Your task to perform on an android device: Add "alienware area 51" to the cart on bestbuy, then select checkout. Image 0: 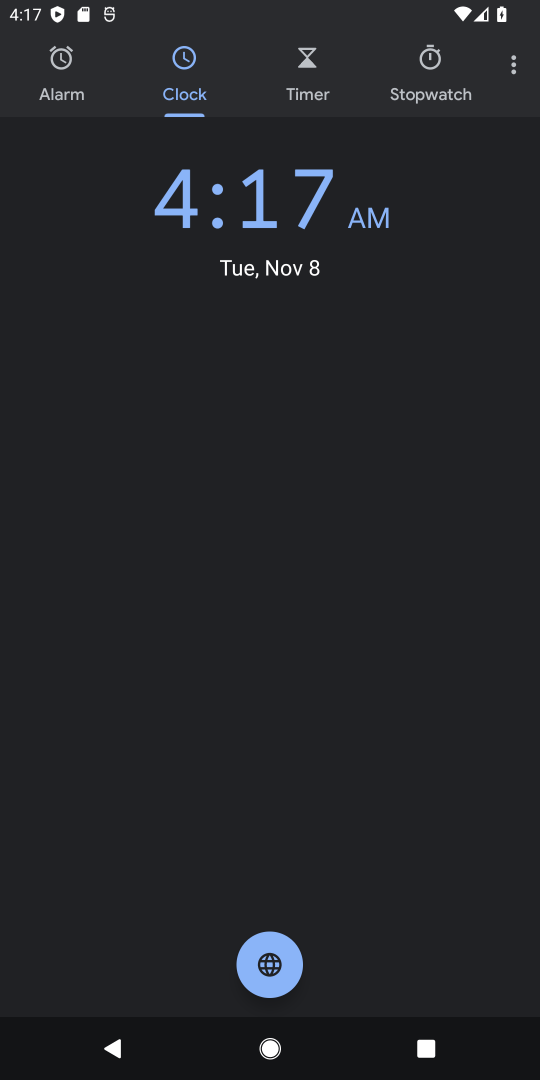
Step 0: press home button
Your task to perform on an android device: Add "alienware area 51" to the cart on bestbuy, then select checkout. Image 1: 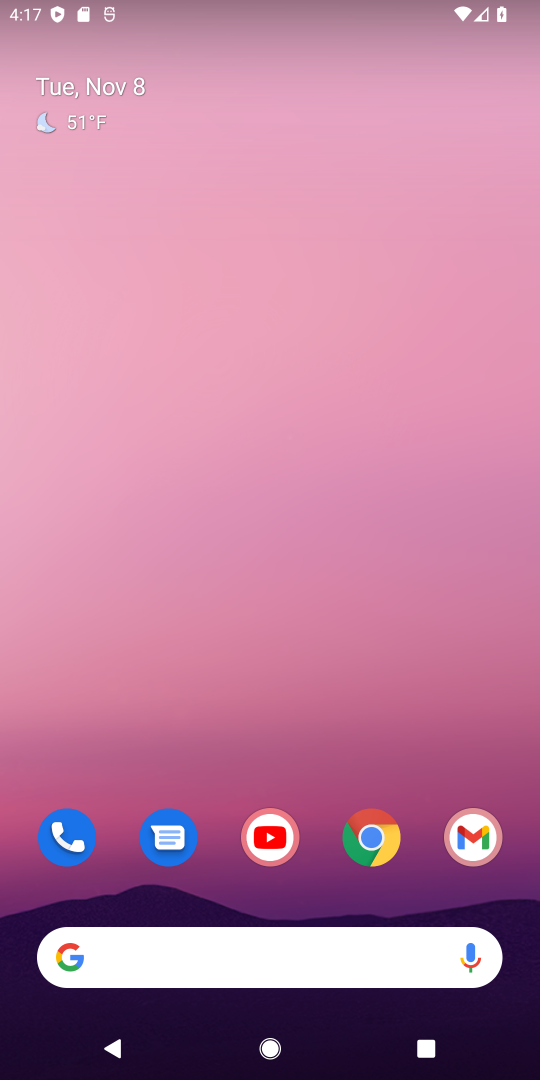
Step 1: click (359, 835)
Your task to perform on an android device: Add "alienware area 51" to the cart on bestbuy, then select checkout. Image 2: 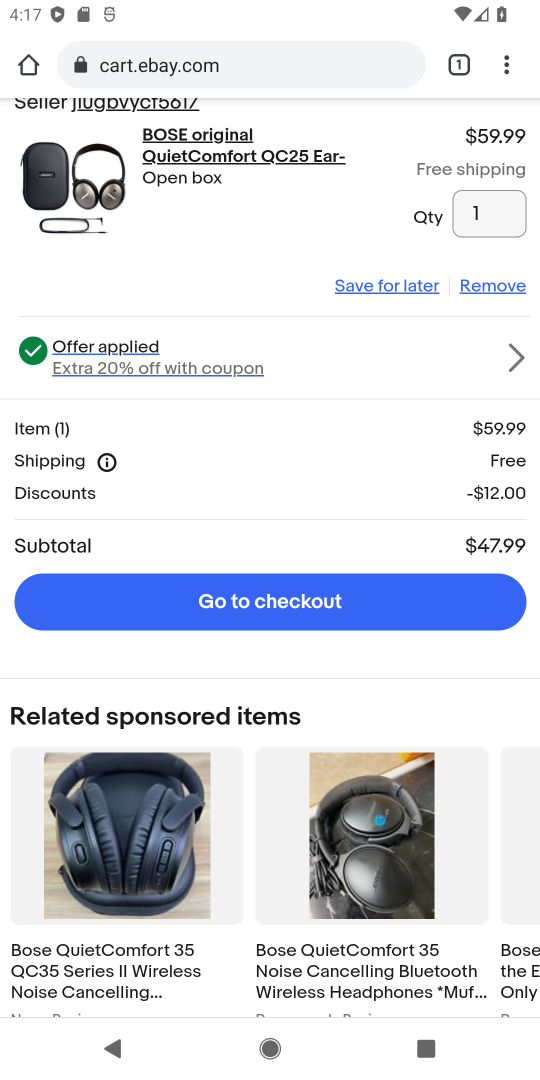
Step 2: click (194, 64)
Your task to perform on an android device: Add "alienware area 51" to the cart on bestbuy, then select checkout. Image 3: 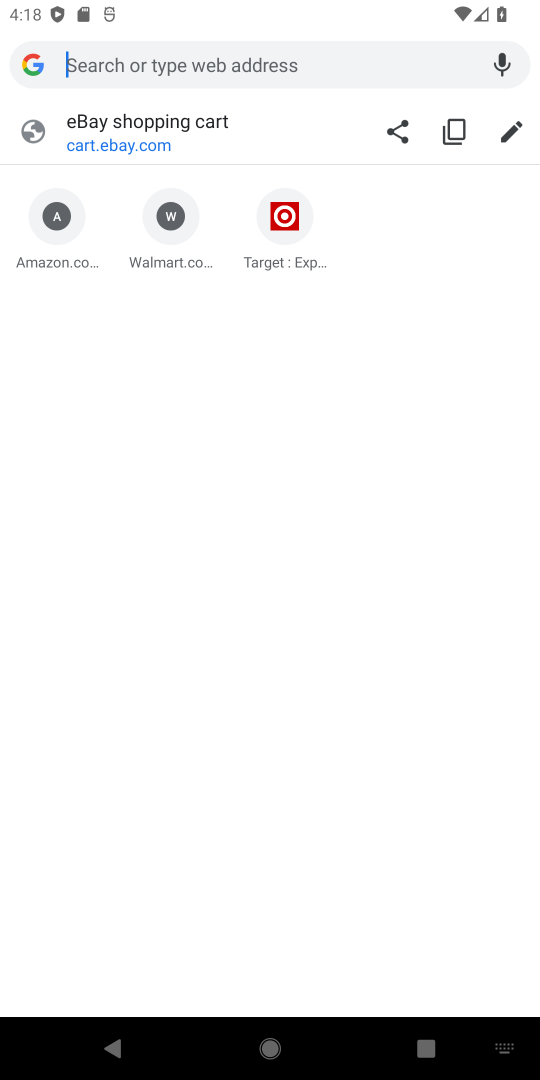
Step 3: type "alienware area 51"
Your task to perform on an android device: Add "alienware area 51" to the cart on bestbuy, then select checkout. Image 4: 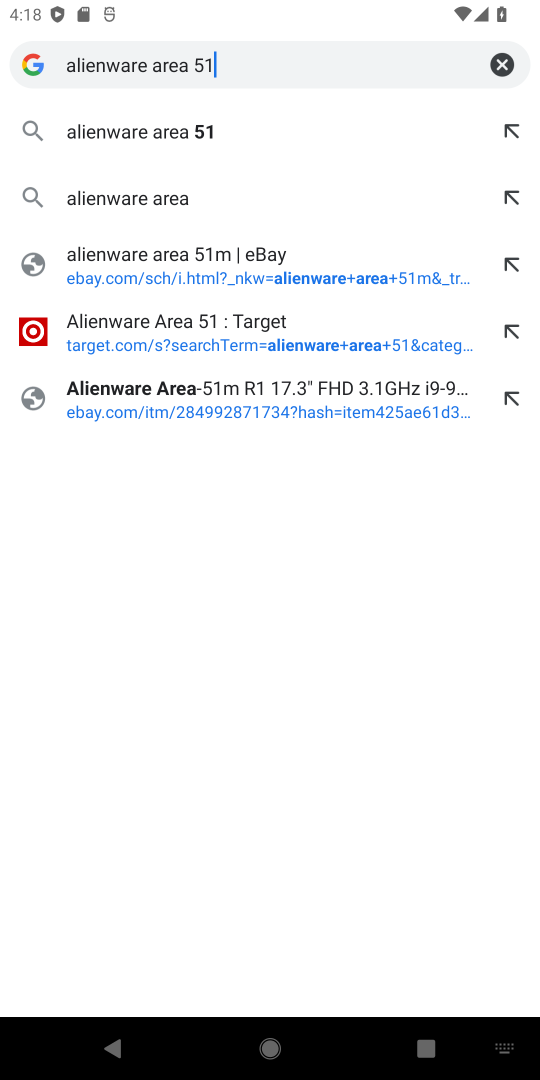
Step 4: type ""
Your task to perform on an android device: Add "alienware area 51" to the cart on bestbuy, then select checkout. Image 5: 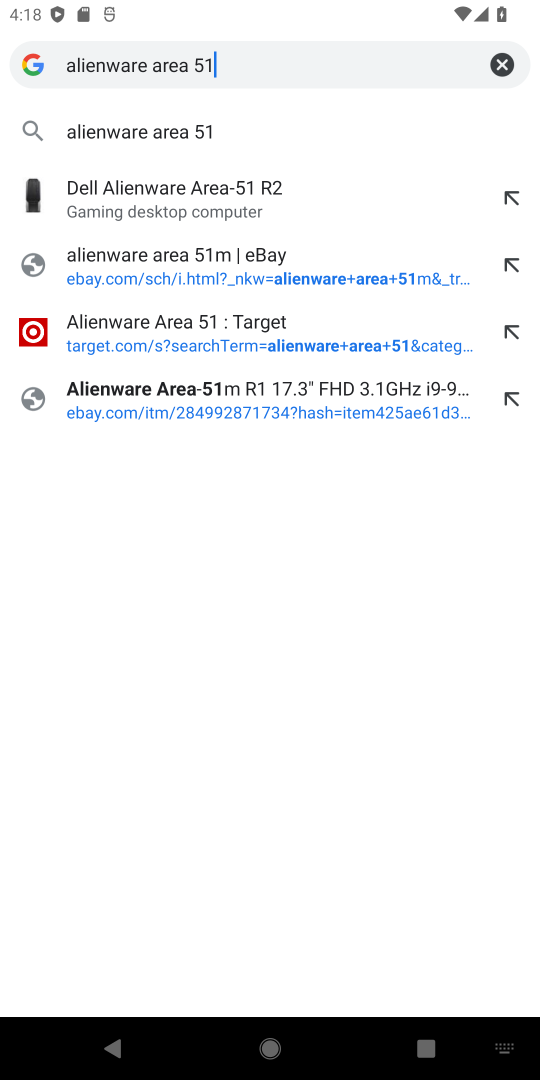
Step 5: click (123, 135)
Your task to perform on an android device: Add "alienware area 51" to the cart on bestbuy, then select checkout. Image 6: 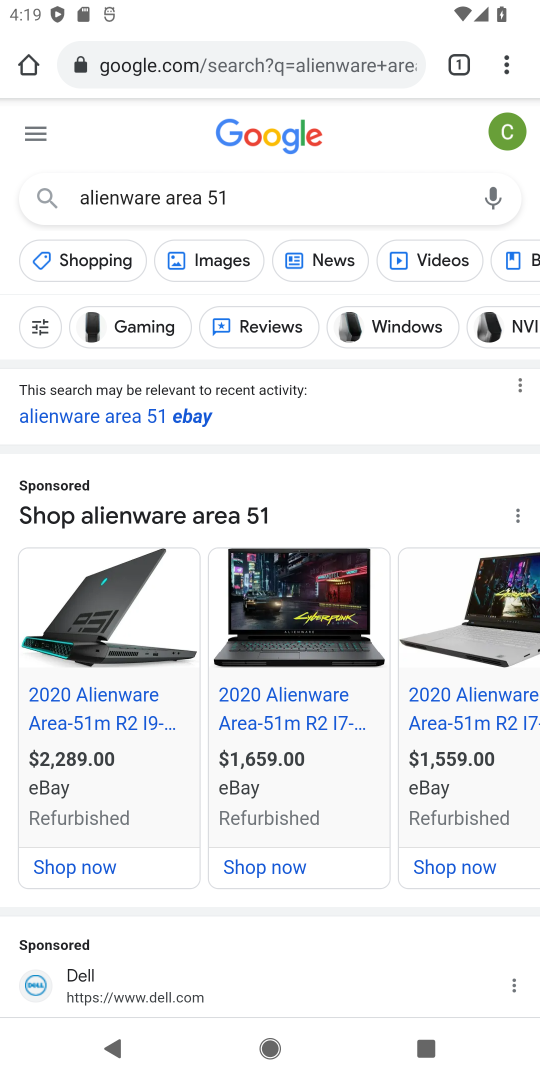
Step 6: drag from (112, 823) to (120, 129)
Your task to perform on an android device: Add "alienware area 51" to the cart on bestbuy, then select checkout. Image 7: 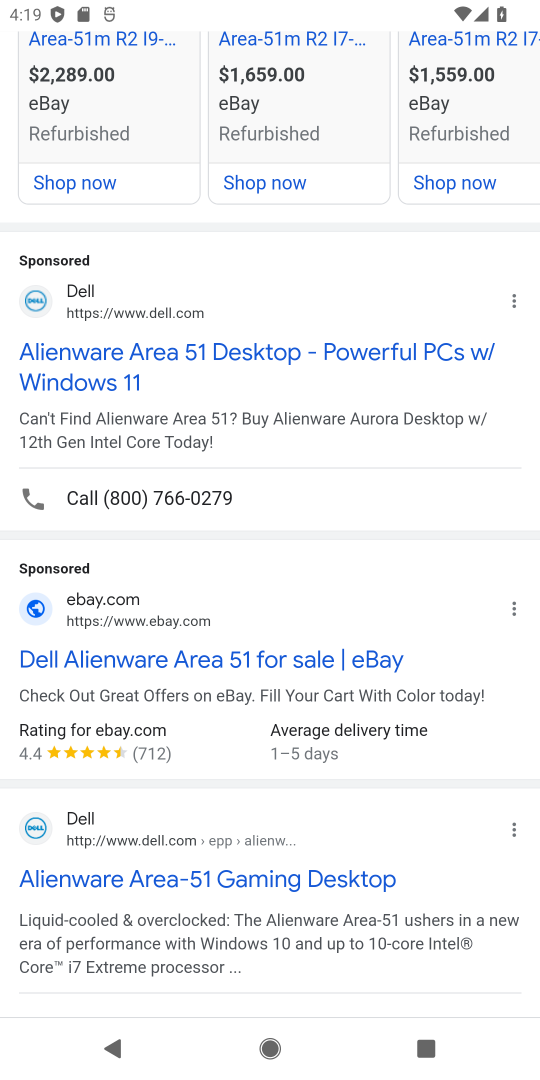
Step 7: click (138, 342)
Your task to perform on an android device: Add "alienware area 51" to the cart on bestbuy, then select checkout. Image 8: 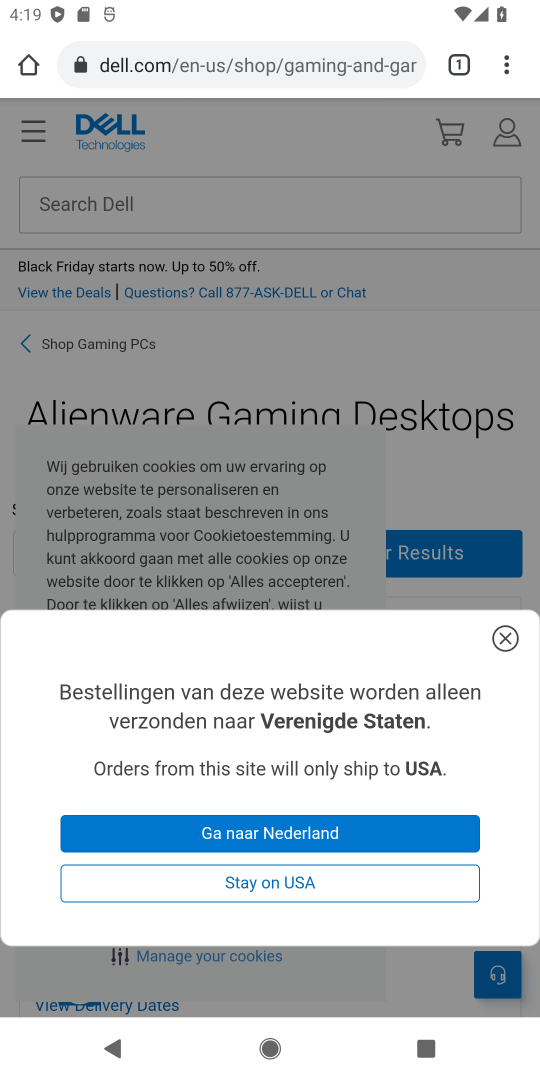
Step 8: click (509, 644)
Your task to perform on an android device: Add "alienware area 51" to the cart on bestbuy, then select checkout. Image 9: 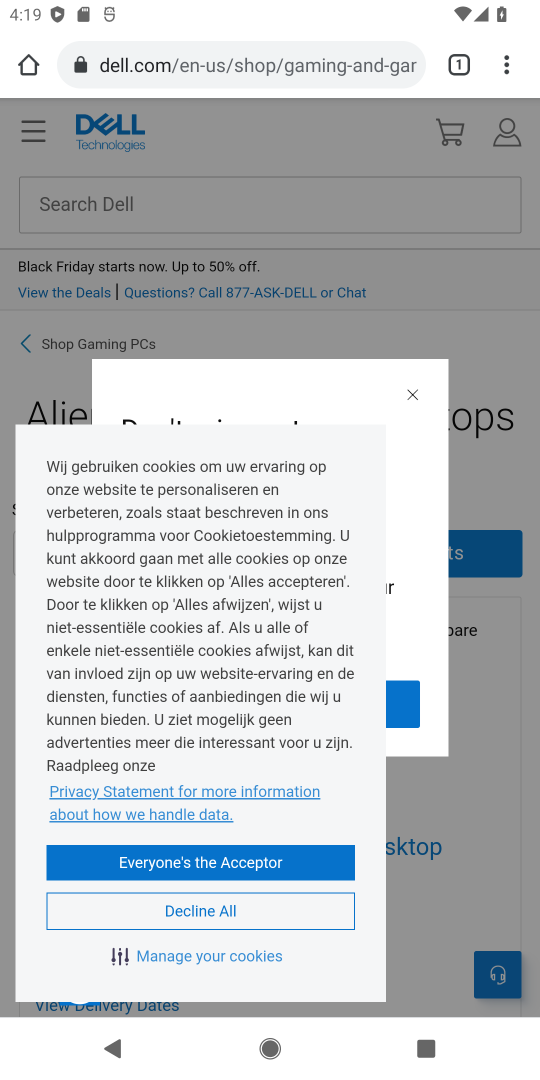
Step 9: click (411, 391)
Your task to perform on an android device: Add "alienware area 51" to the cart on bestbuy, then select checkout. Image 10: 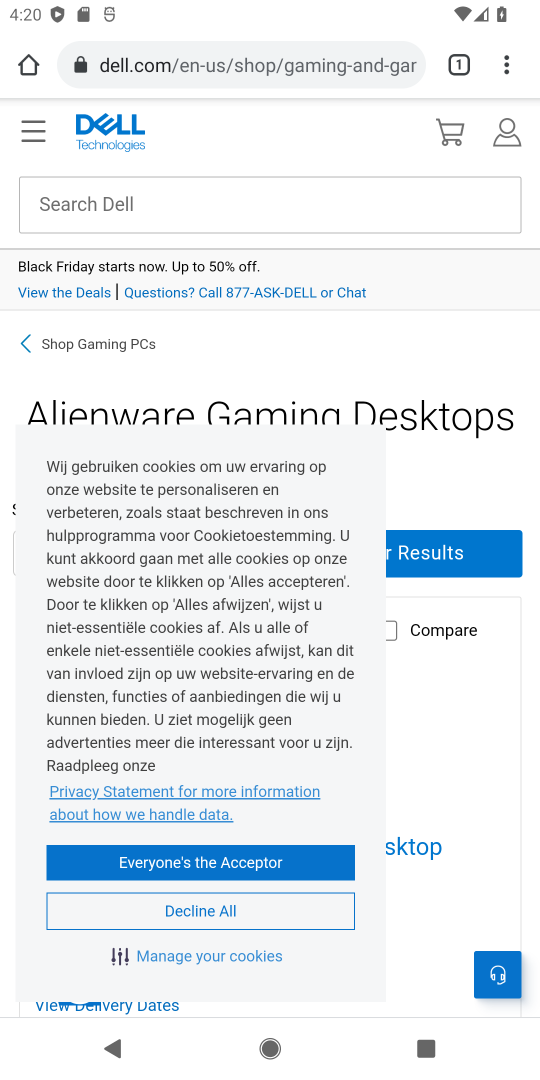
Step 10: click (182, 912)
Your task to perform on an android device: Add "alienware area 51" to the cart on bestbuy, then select checkout. Image 11: 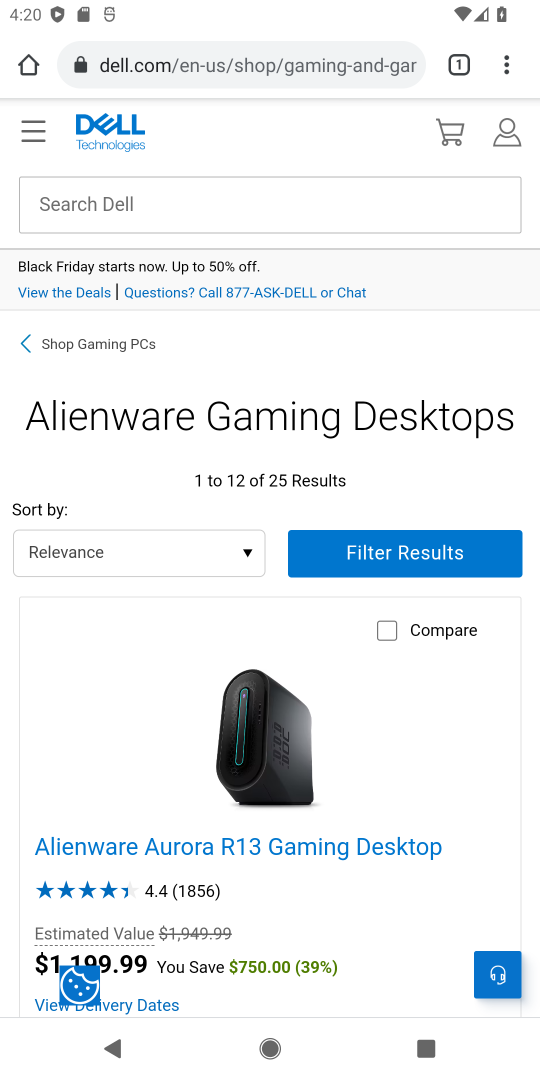
Step 11: drag from (152, 768) to (209, 155)
Your task to perform on an android device: Add "alienware area 51" to the cart on bestbuy, then select checkout. Image 12: 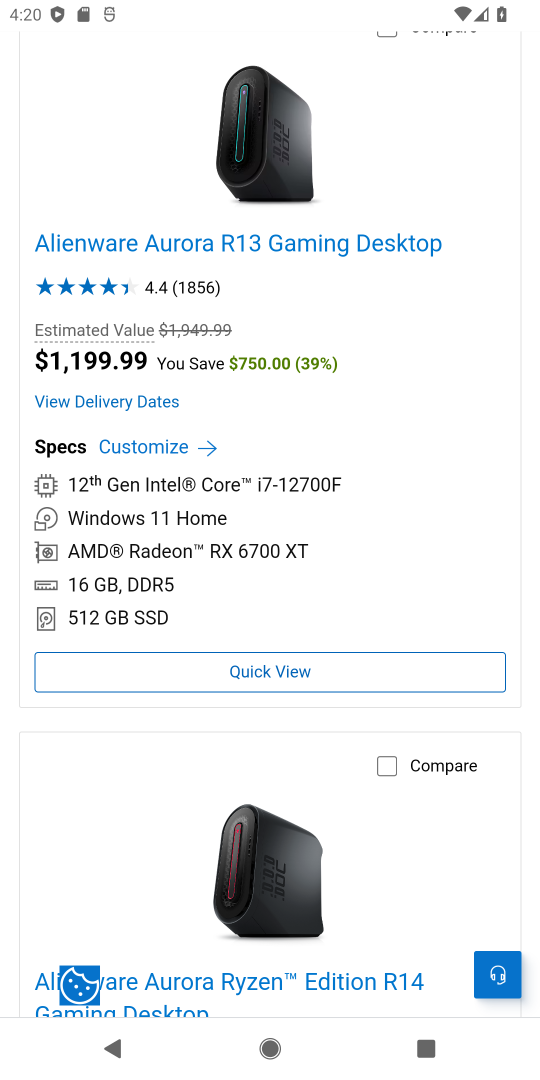
Step 12: drag from (273, 869) to (275, 468)
Your task to perform on an android device: Add "alienware area 51" to the cart on bestbuy, then select checkout. Image 13: 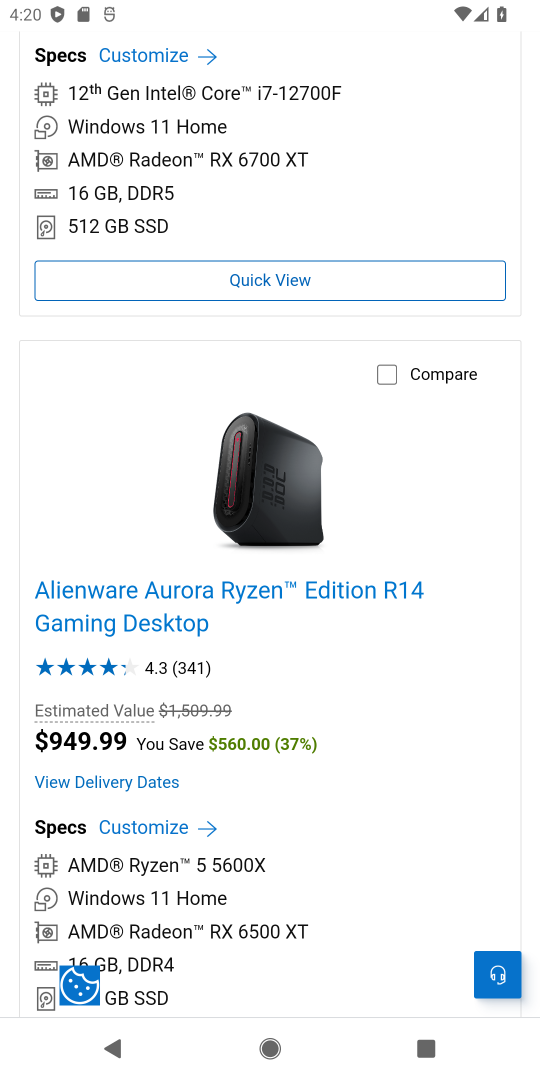
Step 13: click (172, 597)
Your task to perform on an android device: Add "alienware area 51" to the cart on bestbuy, then select checkout. Image 14: 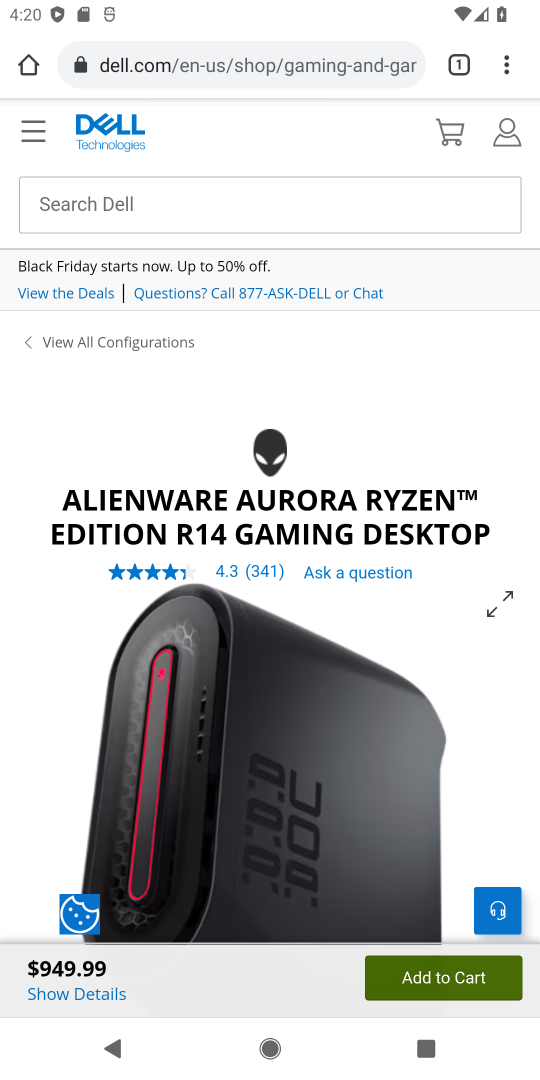
Step 14: drag from (81, 756) to (191, 35)
Your task to perform on an android device: Add "alienware area 51" to the cart on bestbuy, then select checkout. Image 15: 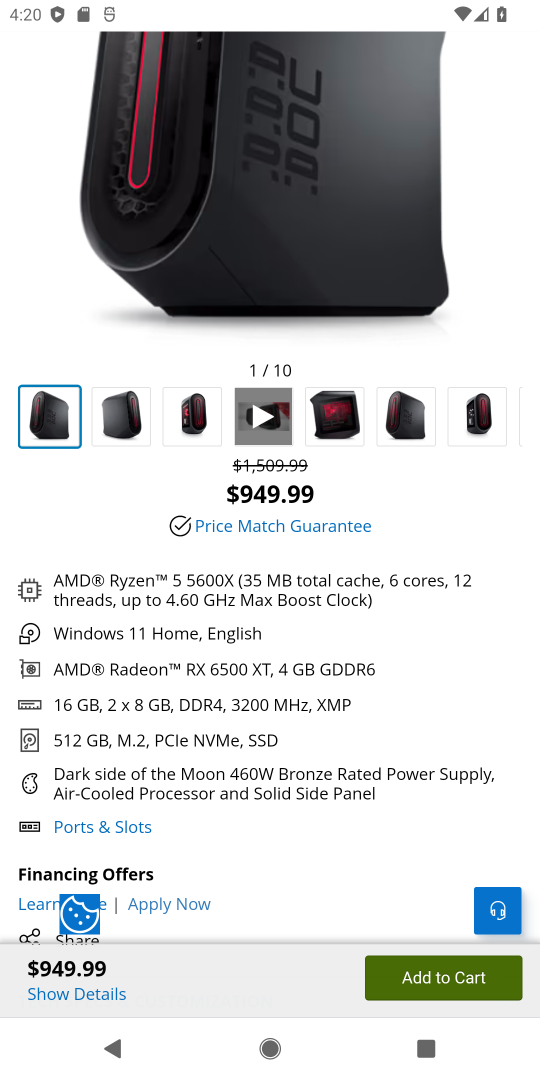
Step 15: click (444, 984)
Your task to perform on an android device: Add "alienware area 51" to the cart on bestbuy, then select checkout. Image 16: 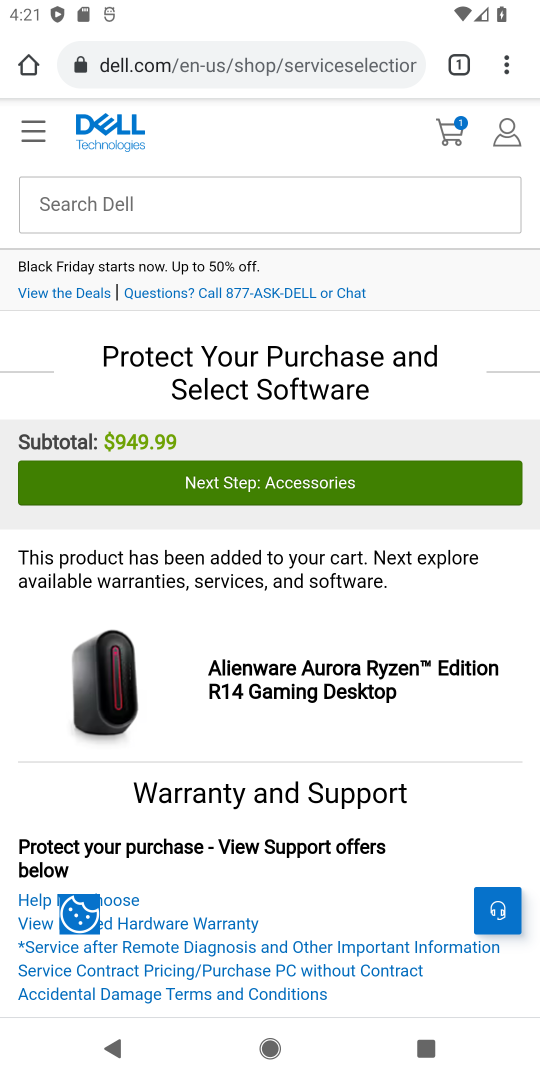
Step 16: drag from (225, 679) to (256, 471)
Your task to perform on an android device: Add "alienware area 51" to the cart on bestbuy, then select checkout. Image 17: 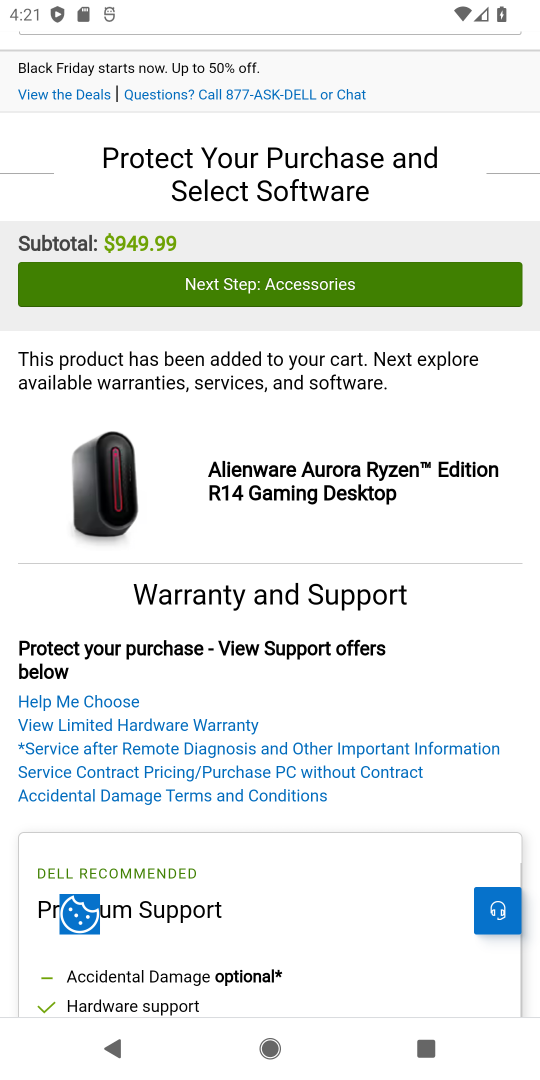
Step 17: drag from (386, 308) to (324, 799)
Your task to perform on an android device: Add "alienware area 51" to the cart on bestbuy, then select checkout. Image 18: 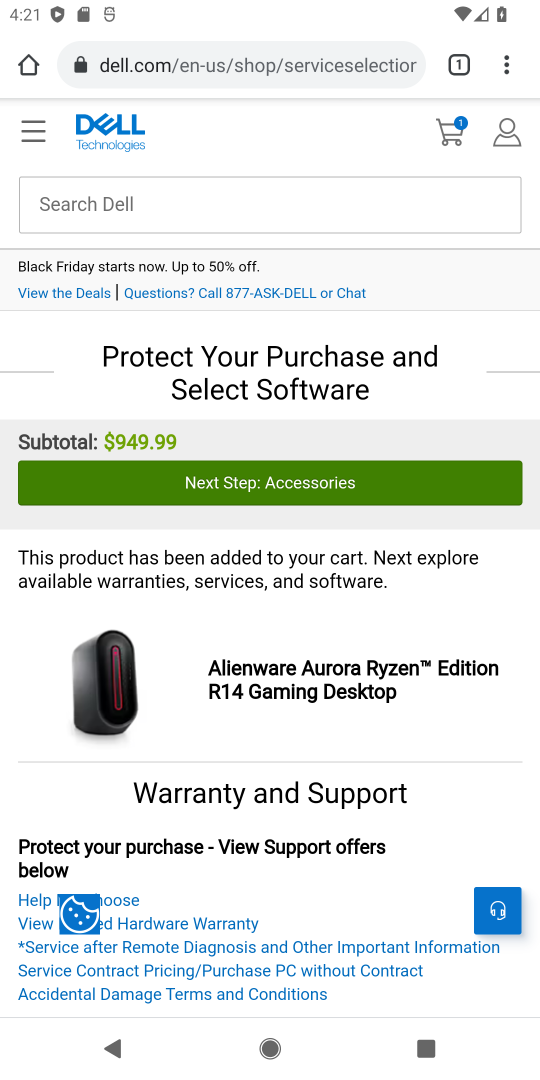
Step 18: click (459, 131)
Your task to perform on an android device: Add "alienware area 51" to the cart on bestbuy, then select checkout. Image 19: 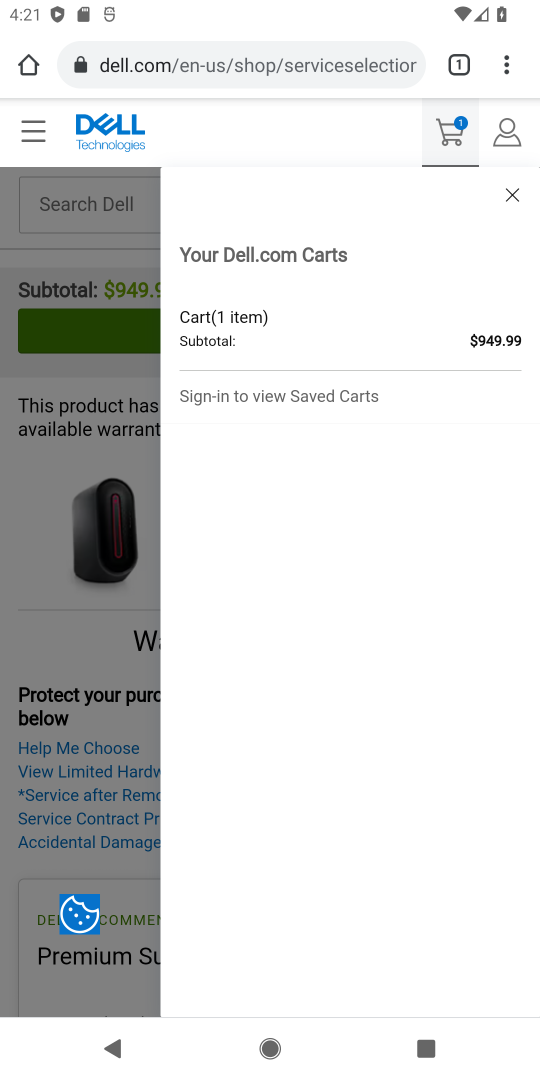
Step 19: click (512, 192)
Your task to perform on an android device: Add "alienware area 51" to the cart on bestbuy, then select checkout. Image 20: 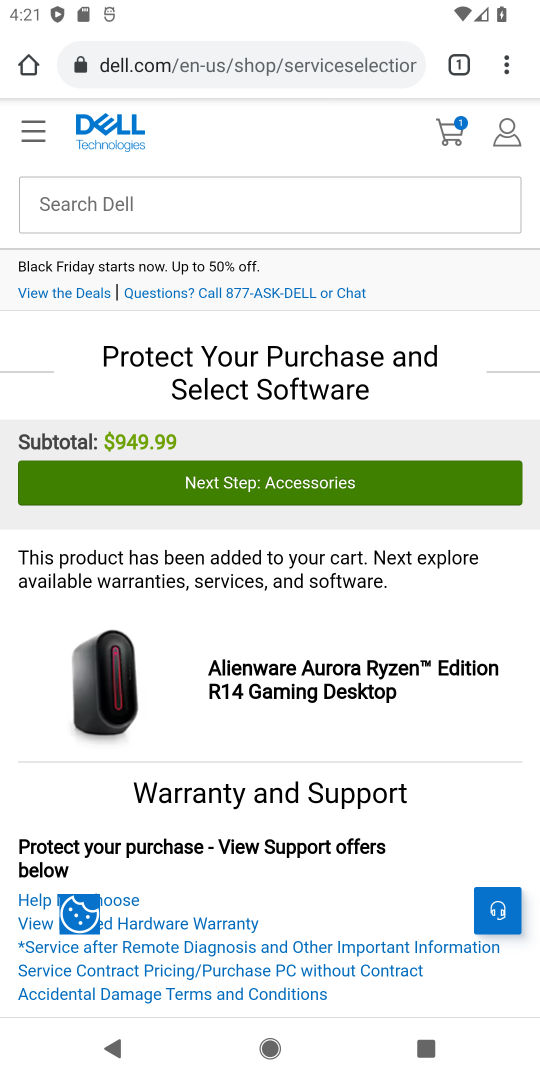
Step 20: drag from (215, 410) to (94, 968)
Your task to perform on an android device: Add "alienware area 51" to the cart on bestbuy, then select checkout. Image 21: 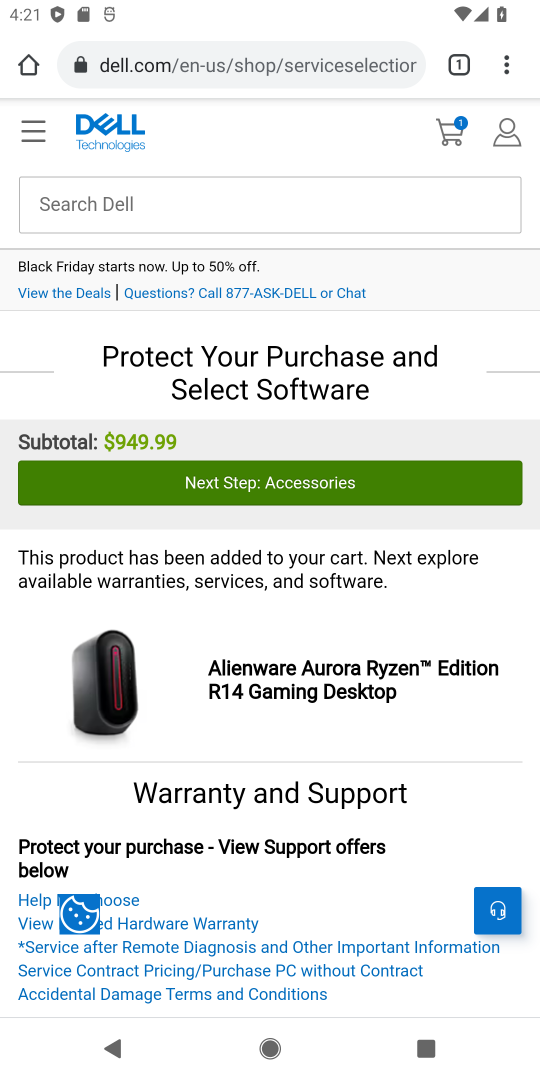
Step 21: click (295, 206)
Your task to perform on an android device: Add "alienware area 51" to the cart on bestbuy, then select checkout. Image 22: 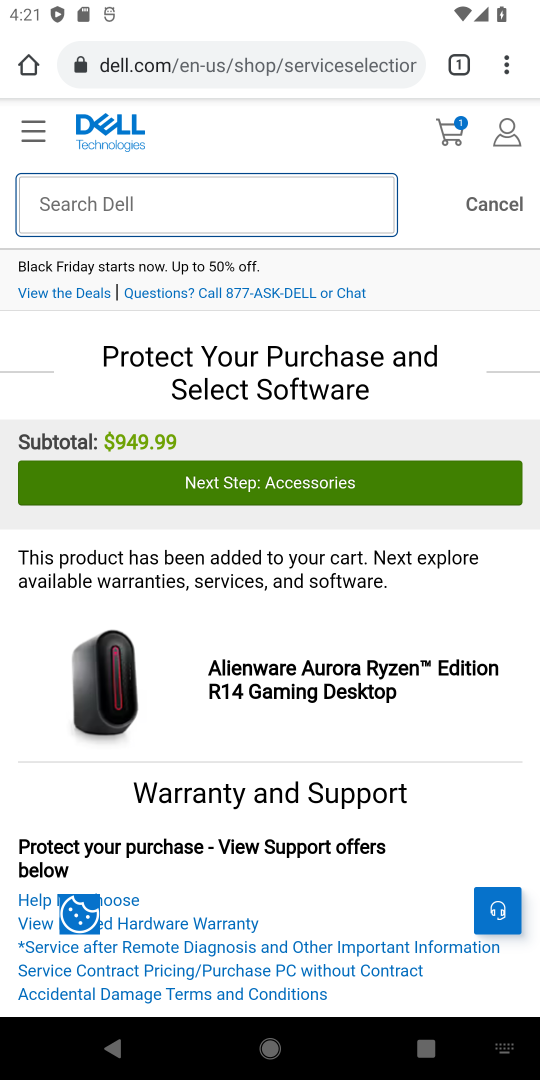
Step 22: click (317, 692)
Your task to perform on an android device: Add "alienware area 51" to the cart on bestbuy, then select checkout. Image 23: 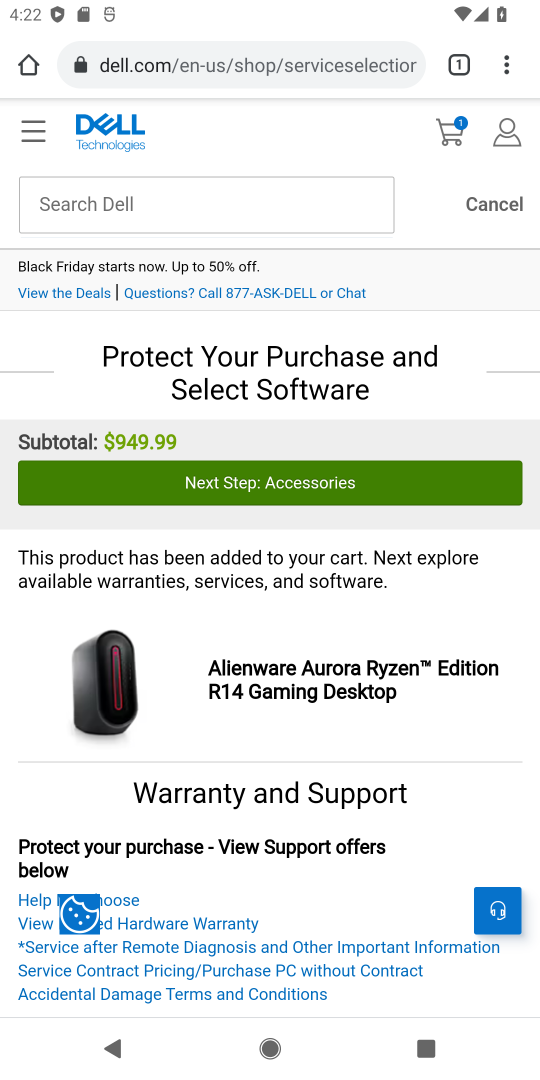
Step 23: drag from (207, 698) to (201, 173)
Your task to perform on an android device: Add "alienware area 51" to the cart on bestbuy, then select checkout. Image 24: 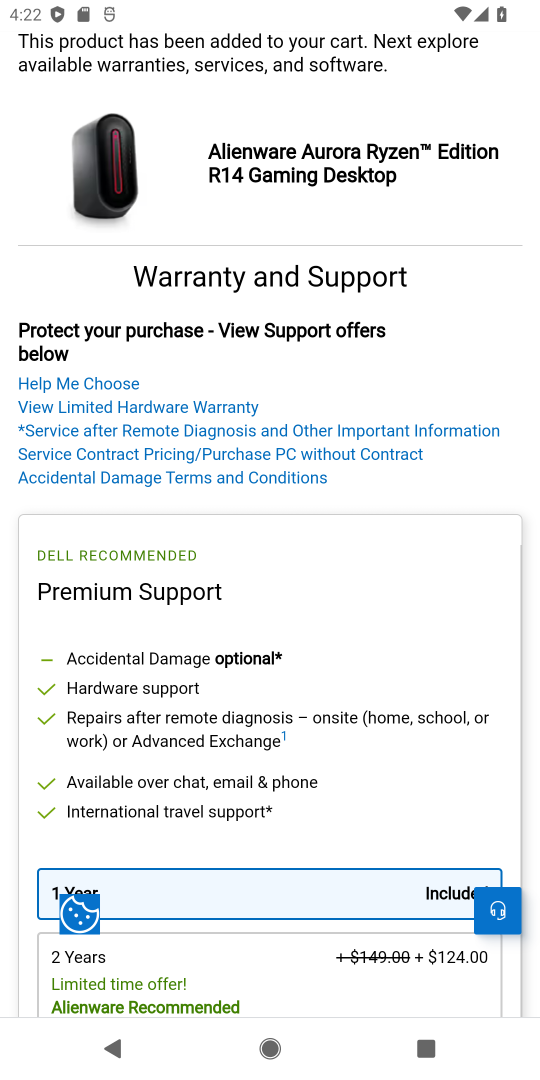
Step 24: click (265, 149)
Your task to perform on an android device: Add "alienware area 51" to the cart on bestbuy, then select checkout. Image 25: 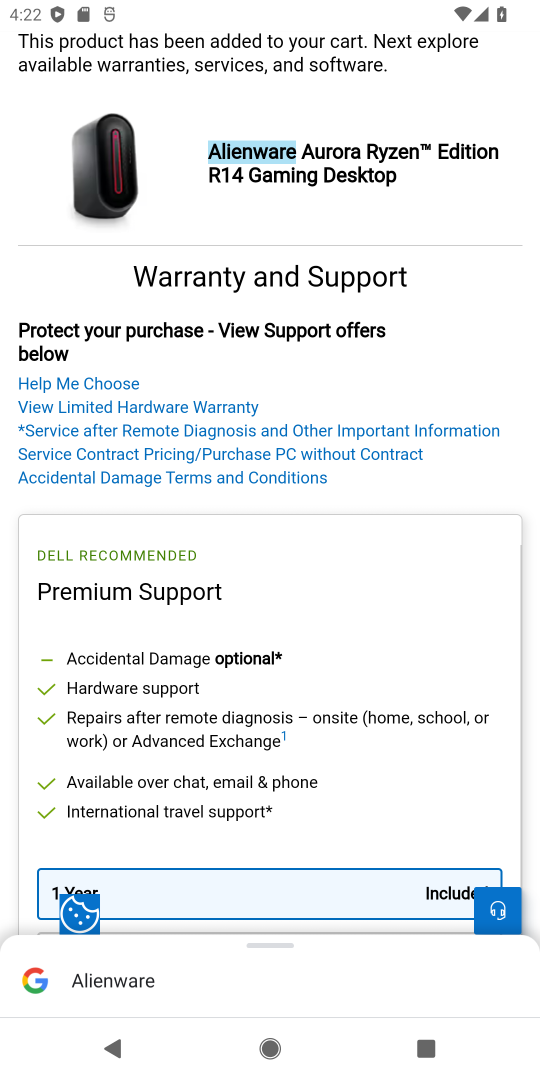
Step 25: click (317, 154)
Your task to perform on an android device: Add "alienware area 51" to the cart on bestbuy, then select checkout. Image 26: 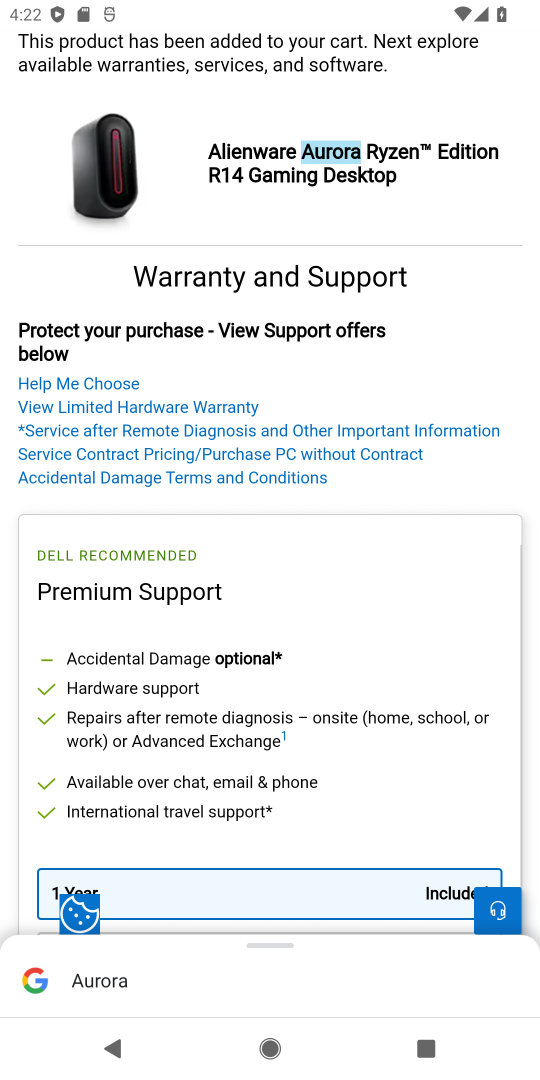
Step 26: click (128, 155)
Your task to perform on an android device: Add "alienware area 51" to the cart on bestbuy, then select checkout. Image 27: 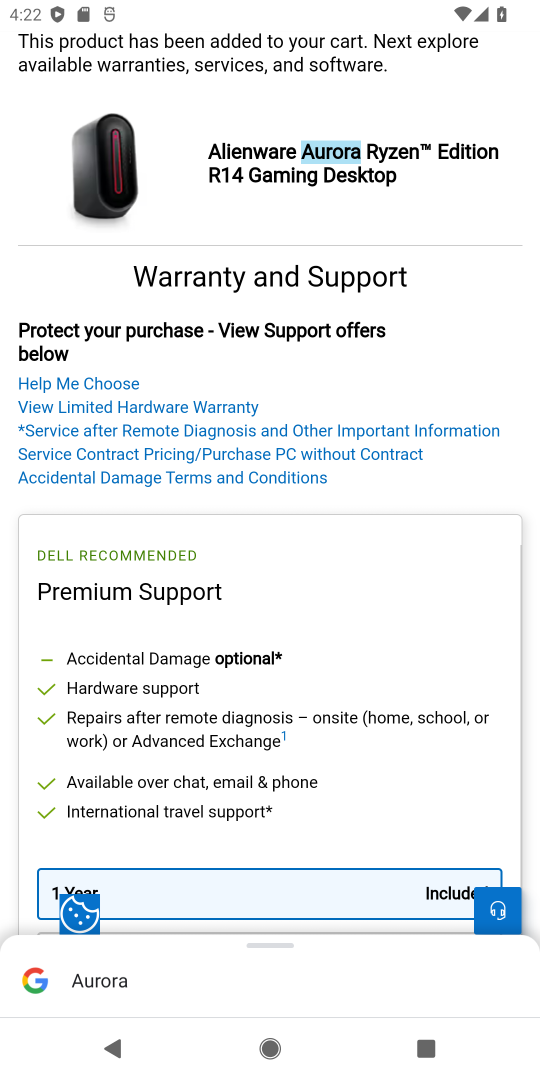
Step 27: drag from (501, 208) to (377, 510)
Your task to perform on an android device: Add "alienware area 51" to the cart on bestbuy, then select checkout. Image 28: 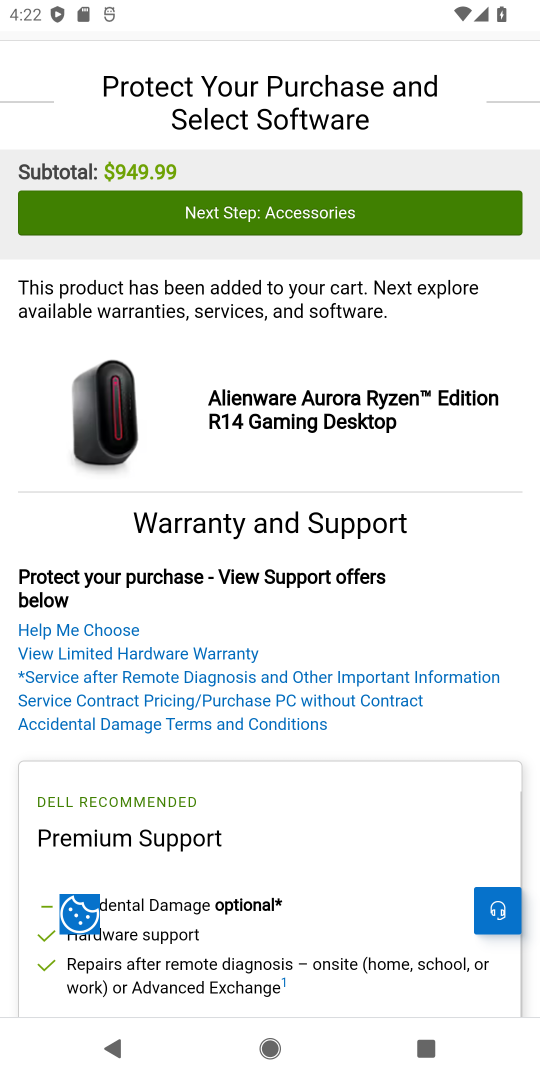
Step 28: click (254, 402)
Your task to perform on an android device: Add "alienware area 51" to the cart on bestbuy, then select checkout. Image 29: 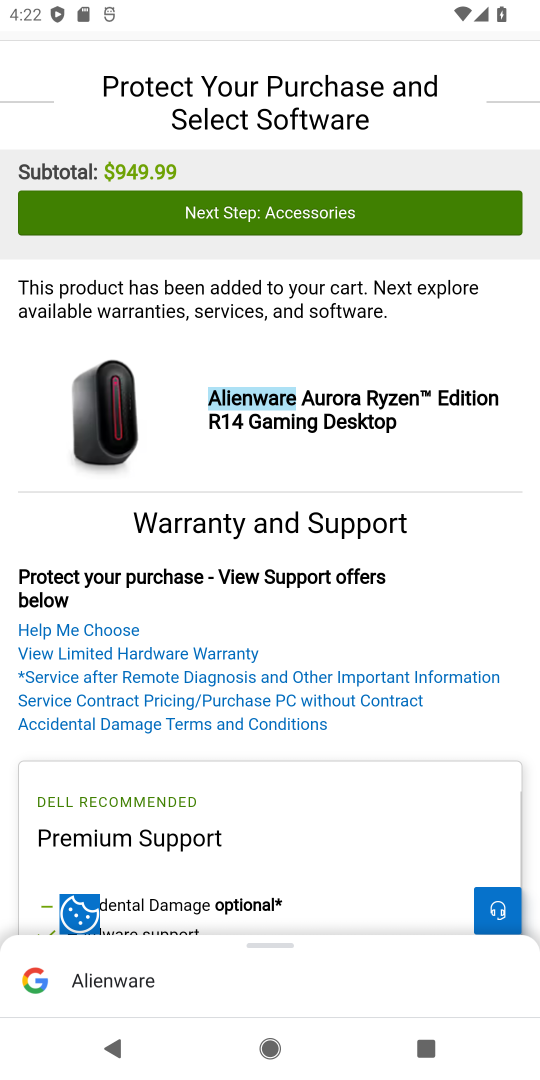
Step 29: task complete